Your task to perform on an android device: change alarm snooze length Image 0: 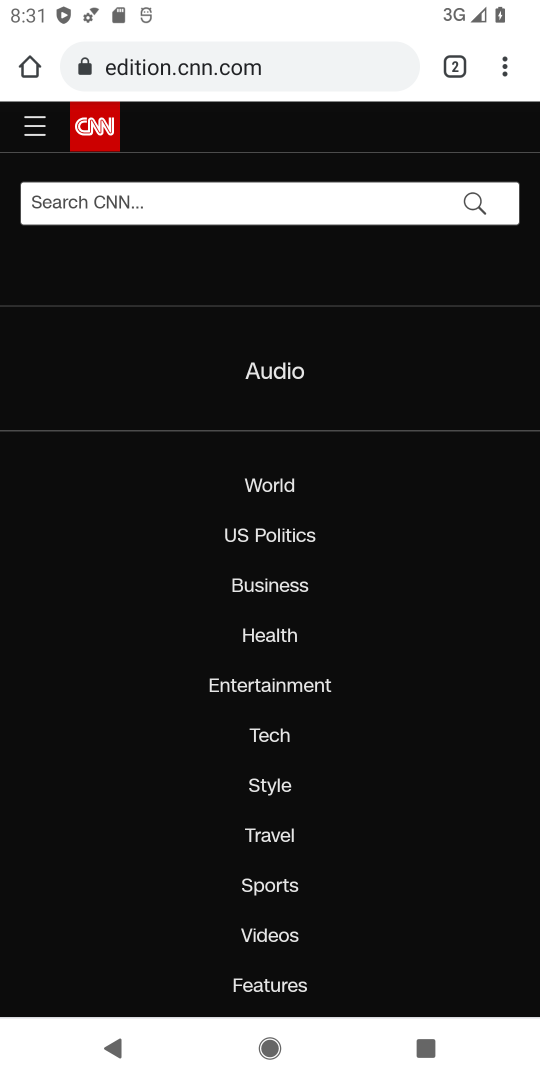
Step 0: press home button
Your task to perform on an android device: change alarm snooze length Image 1: 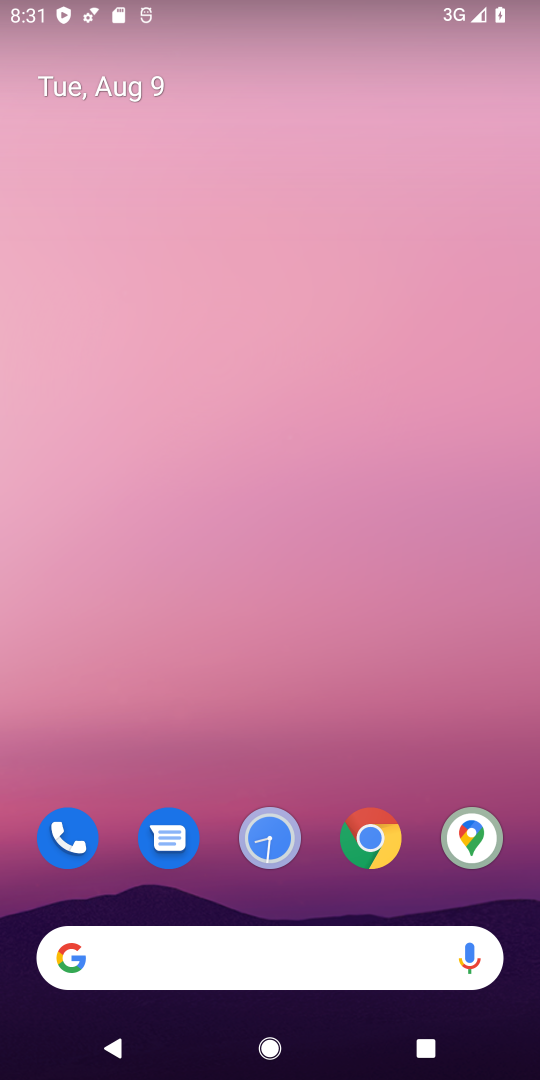
Step 1: drag from (283, 953) to (271, 142)
Your task to perform on an android device: change alarm snooze length Image 2: 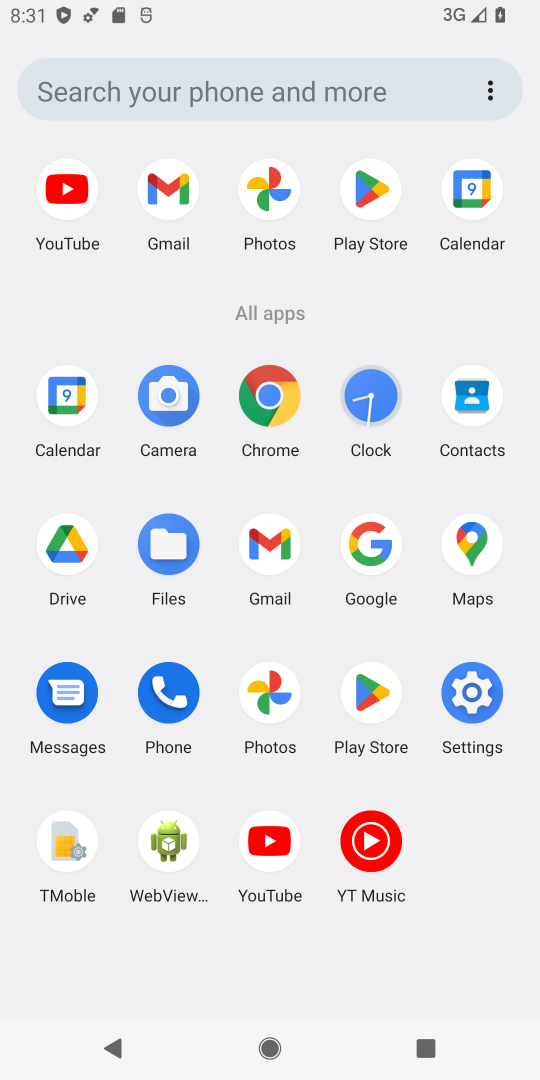
Step 2: click (373, 412)
Your task to perform on an android device: change alarm snooze length Image 3: 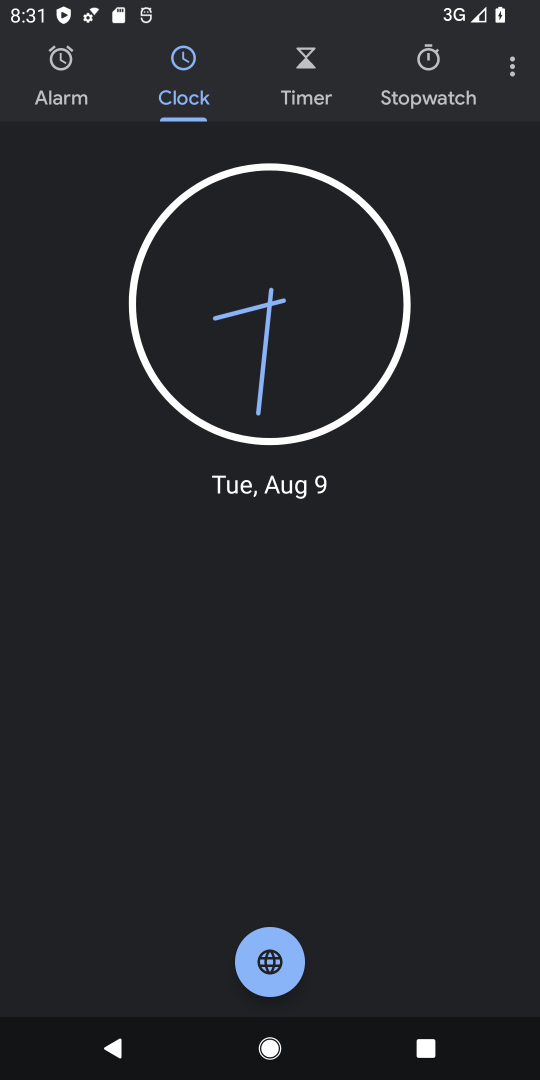
Step 3: click (510, 90)
Your task to perform on an android device: change alarm snooze length Image 4: 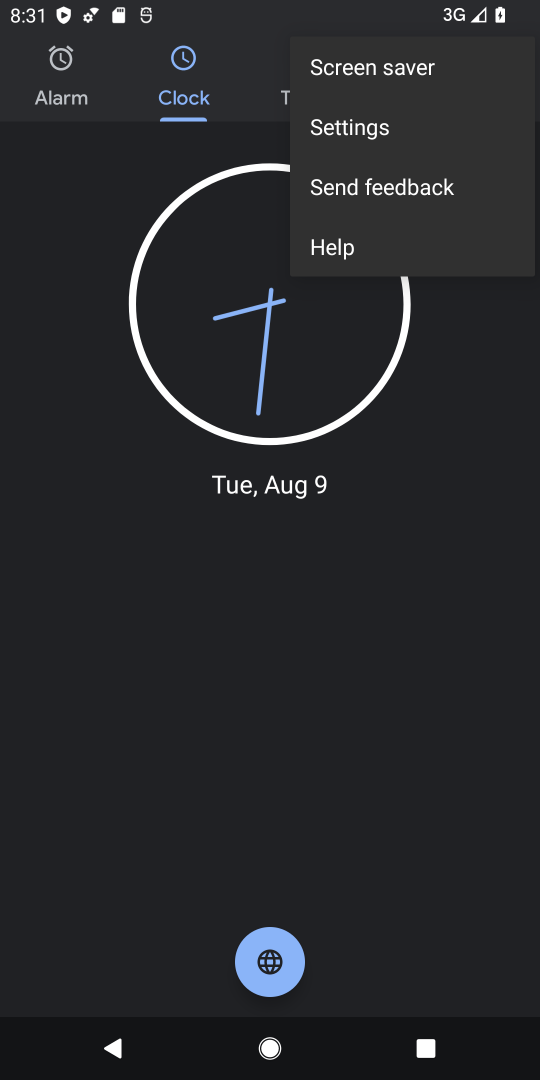
Step 4: click (347, 132)
Your task to perform on an android device: change alarm snooze length Image 5: 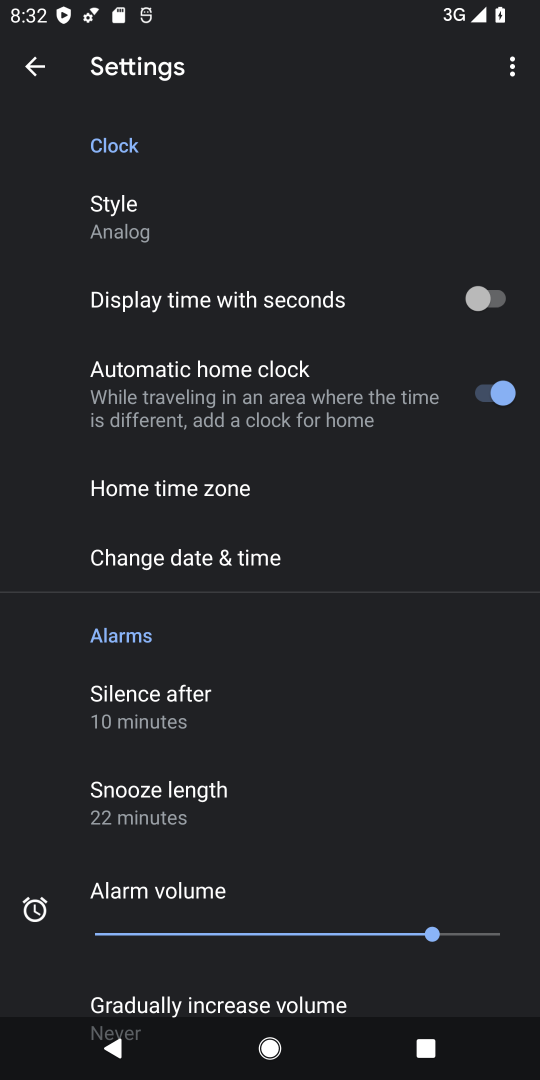
Step 5: click (205, 785)
Your task to perform on an android device: change alarm snooze length Image 6: 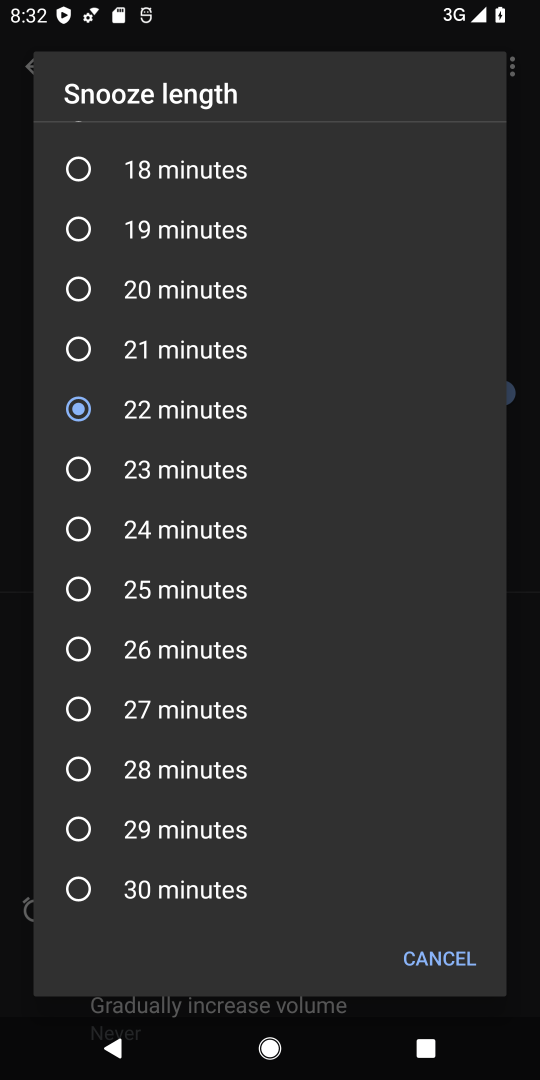
Step 6: click (77, 709)
Your task to perform on an android device: change alarm snooze length Image 7: 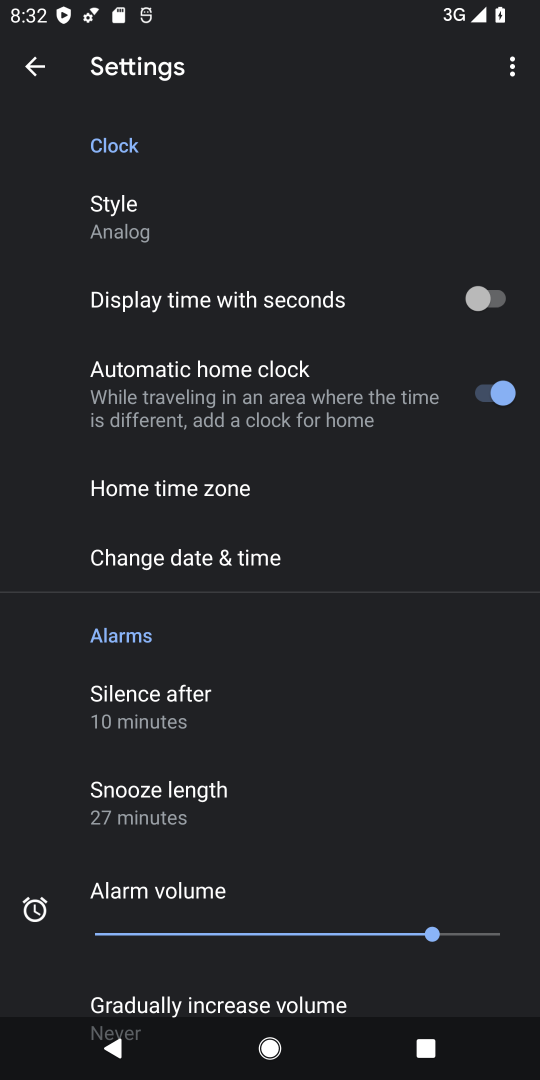
Step 7: task complete